Your task to perform on an android device: Do I have any events this weekend? Image 0: 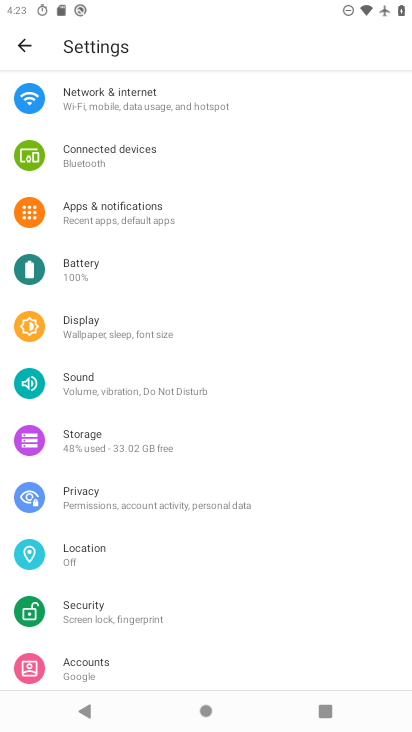
Step 0: press home button
Your task to perform on an android device: Do I have any events this weekend? Image 1: 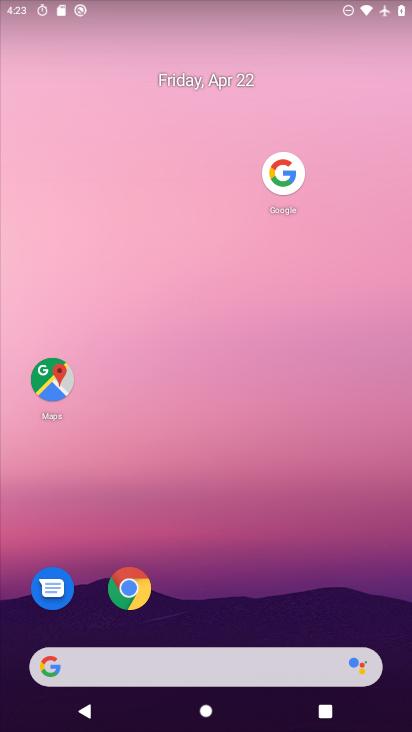
Step 1: drag from (213, 640) to (157, 5)
Your task to perform on an android device: Do I have any events this weekend? Image 2: 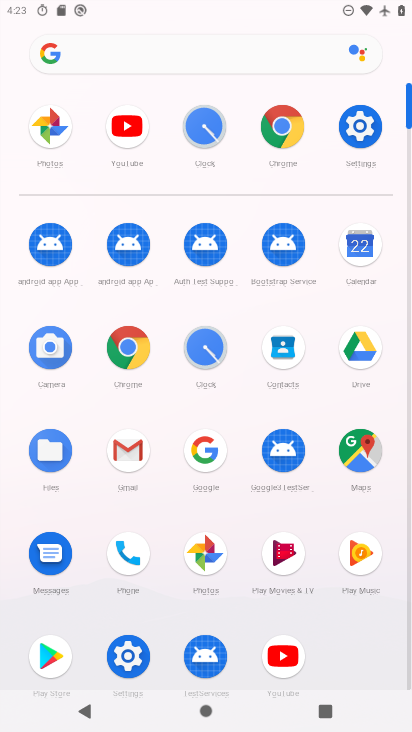
Step 2: click (334, 253)
Your task to perform on an android device: Do I have any events this weekend? Image 3: 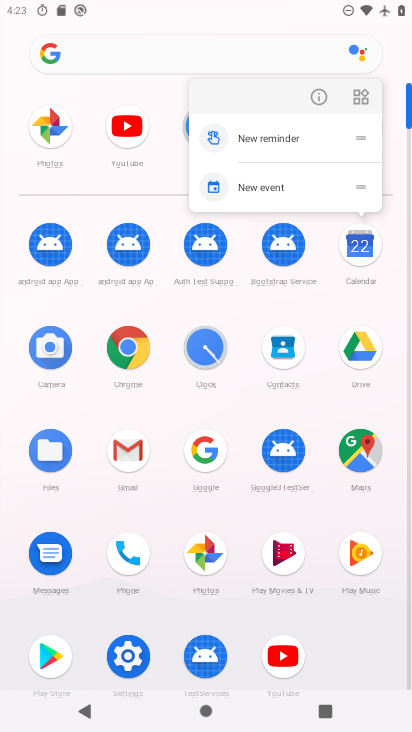
Step 3: click (348, 245)
Your task to perform on an android device: Do I have any events this weekend? Image 4: 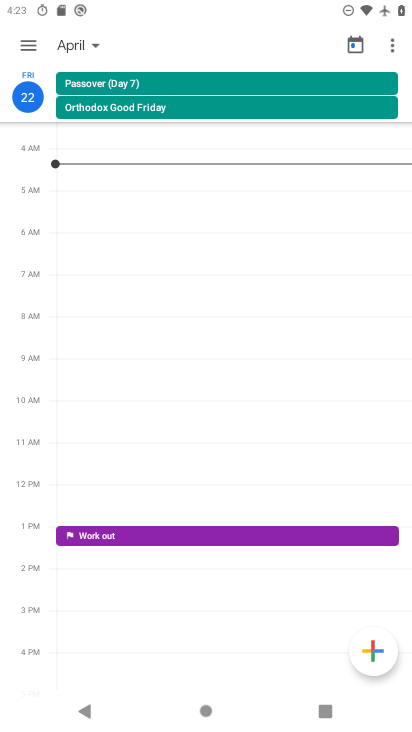
Step 4: click (25, 26)
Your task to perform on an android device: Do I have any events this weekend? Image 5: 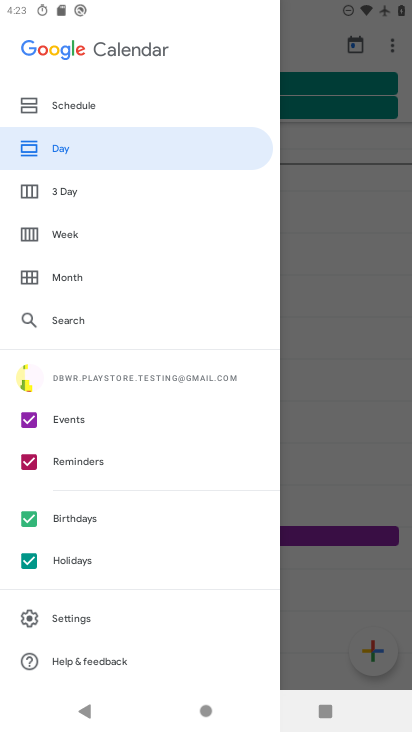
Step 5: click (81, 235)
Your task to perform on an android device: Do I have any events this weekend? Image 6: 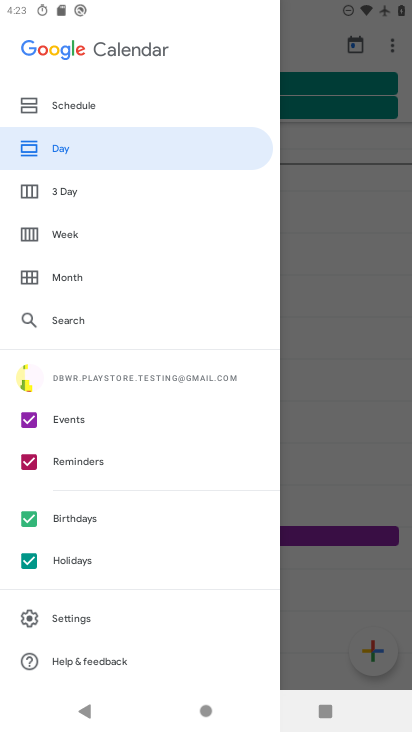
Step 6: click (80, 233)
Your task to perform on an android device: Do I have any events this weekend? Image 7: 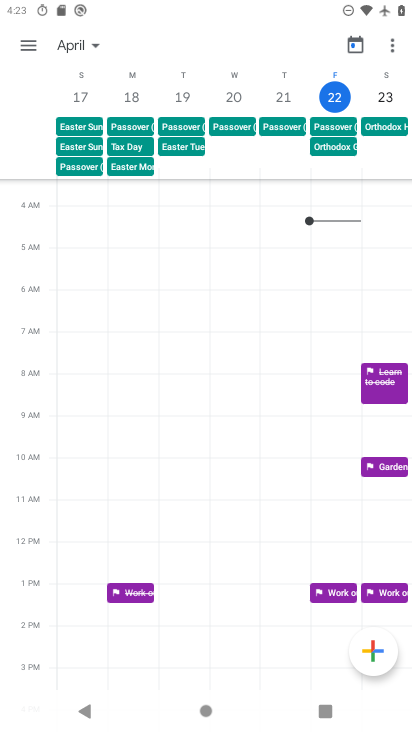
Step 7: task complete